Your task to perform on an android device: change timer sound Image 0: 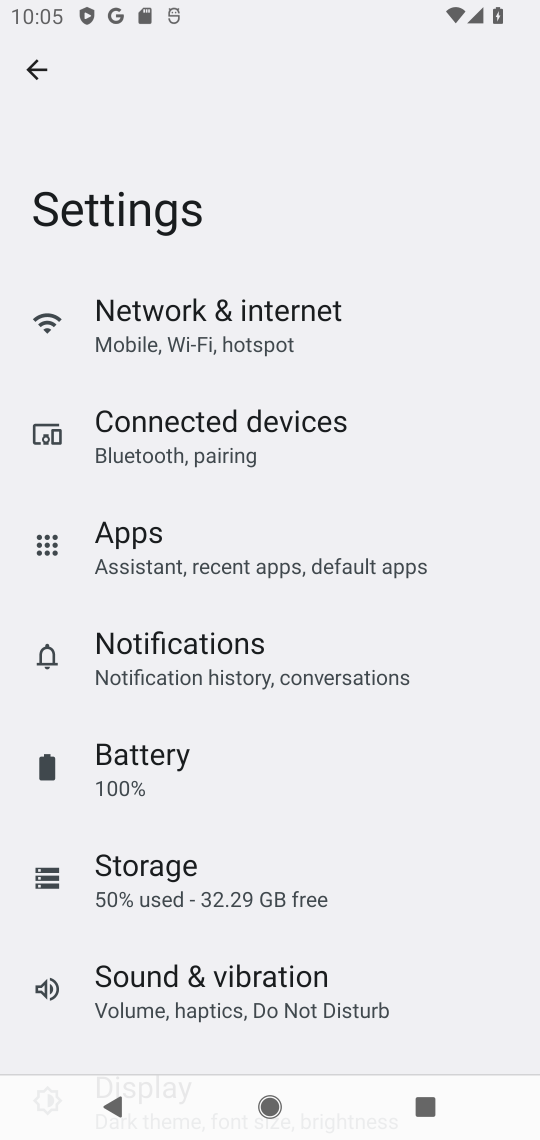
Step 0: press home button
Your task to perform on an android device: change timer sound Image 1: 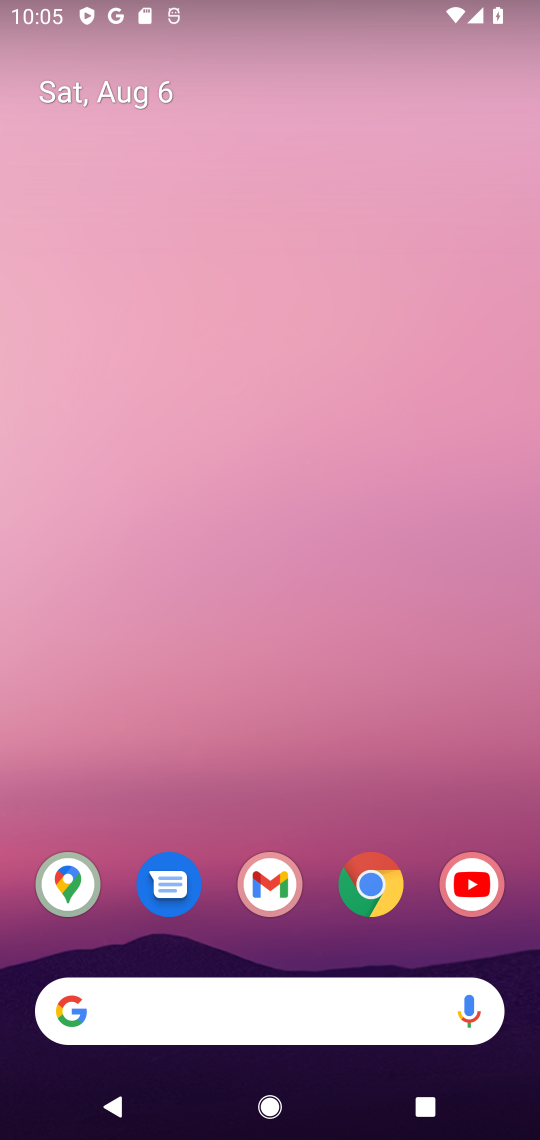
Step 1: drag from (329, 954) to (324, 205)
Your task to perform on an android device: change timer sound Image 2: 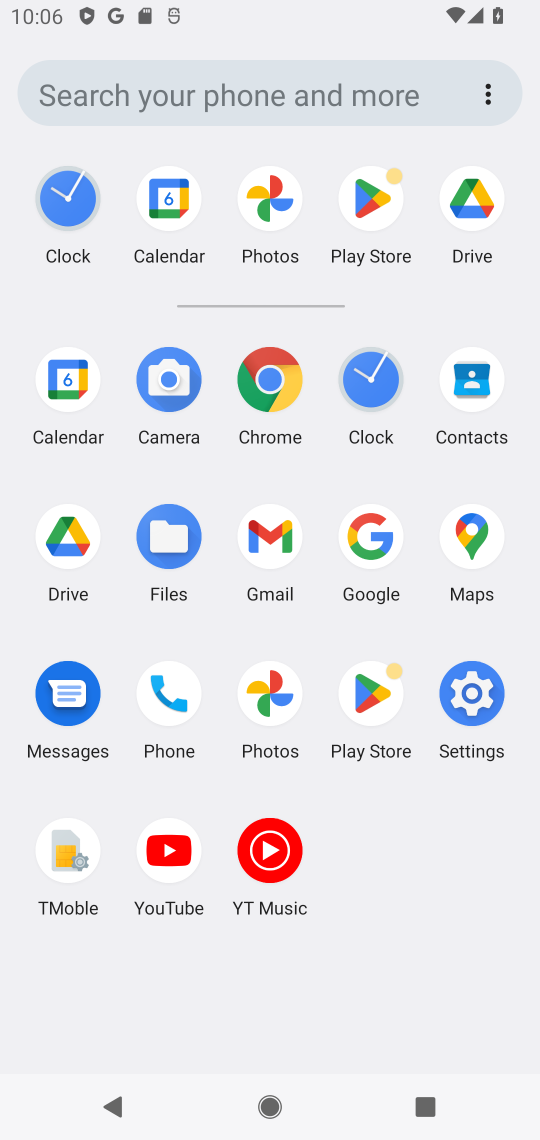
Step 2: click (375, 380)
Your task to perform on an android device: change timer sound Image 3: 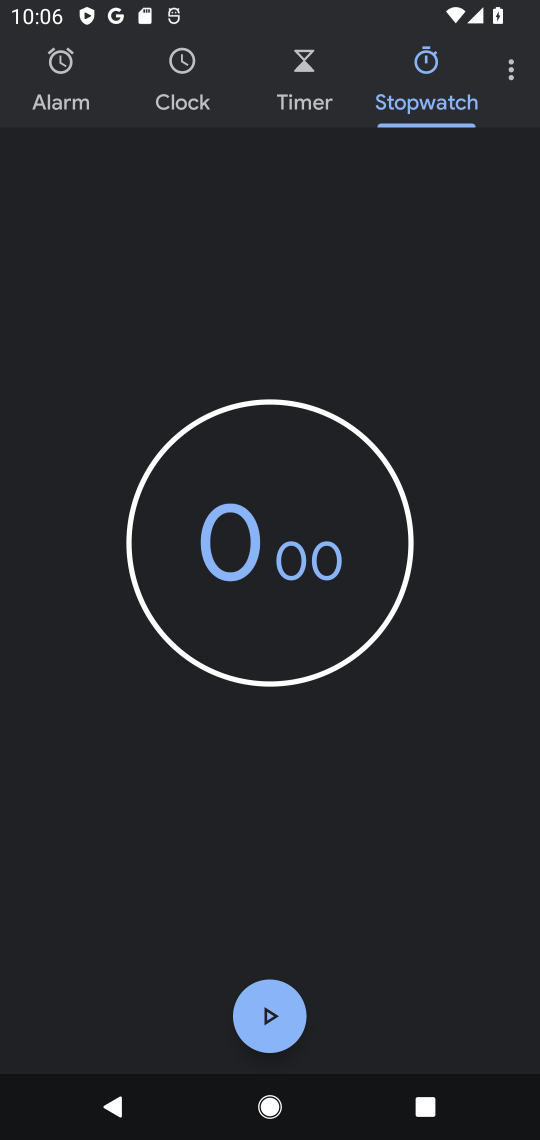
Step 3: click (511, 80)
Your task to perform on an android device: change timer sound Image 4: 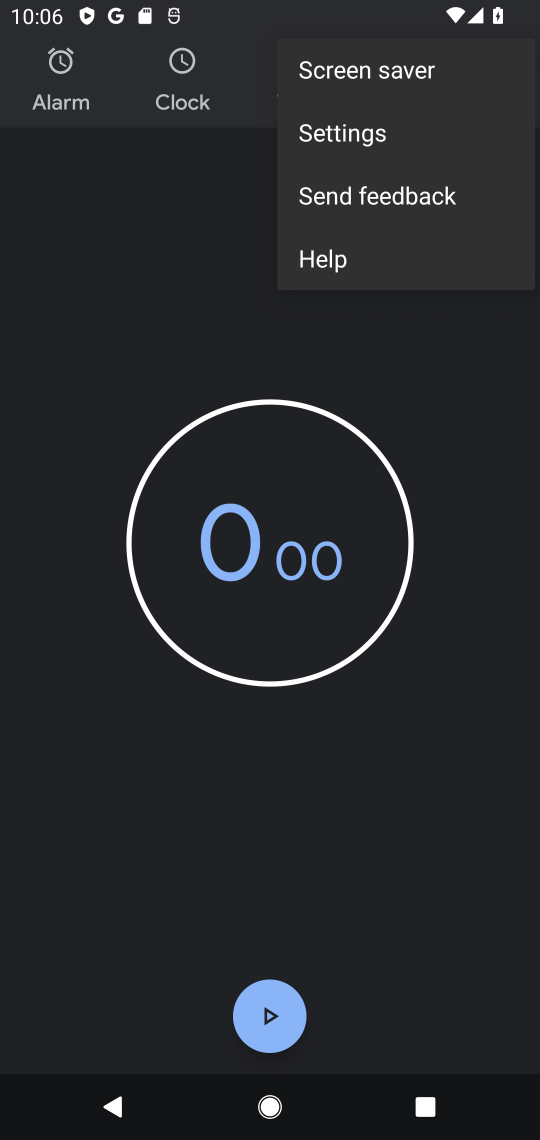
Step 4: click (350, 127)
Your task to perform on an android device: change timer sound Image 5: 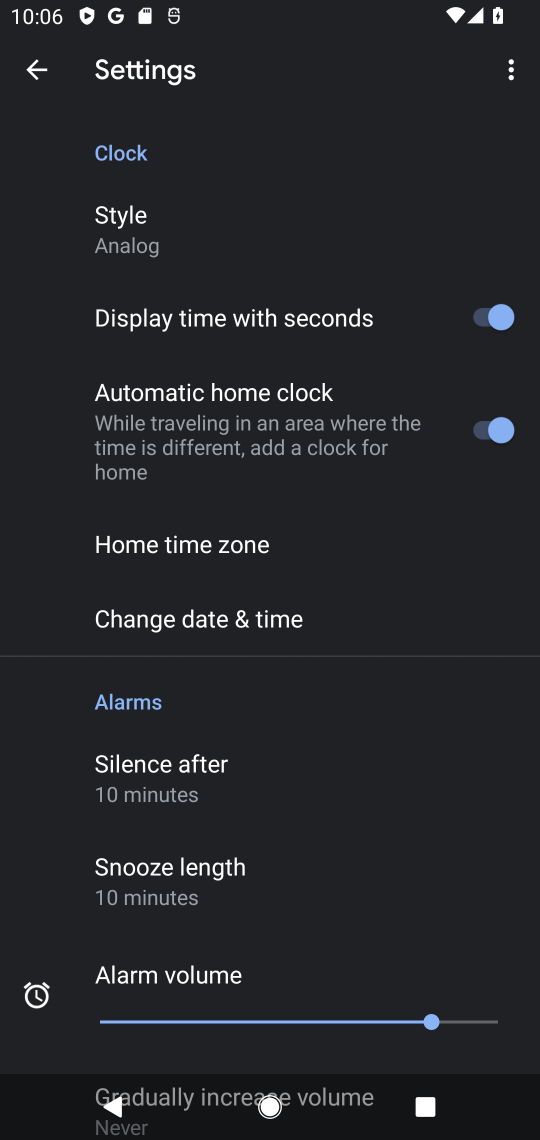
Step 5: drag from (347, 962) to (350, 284)
Your task to perform on an android device: change timer sound Image 6: 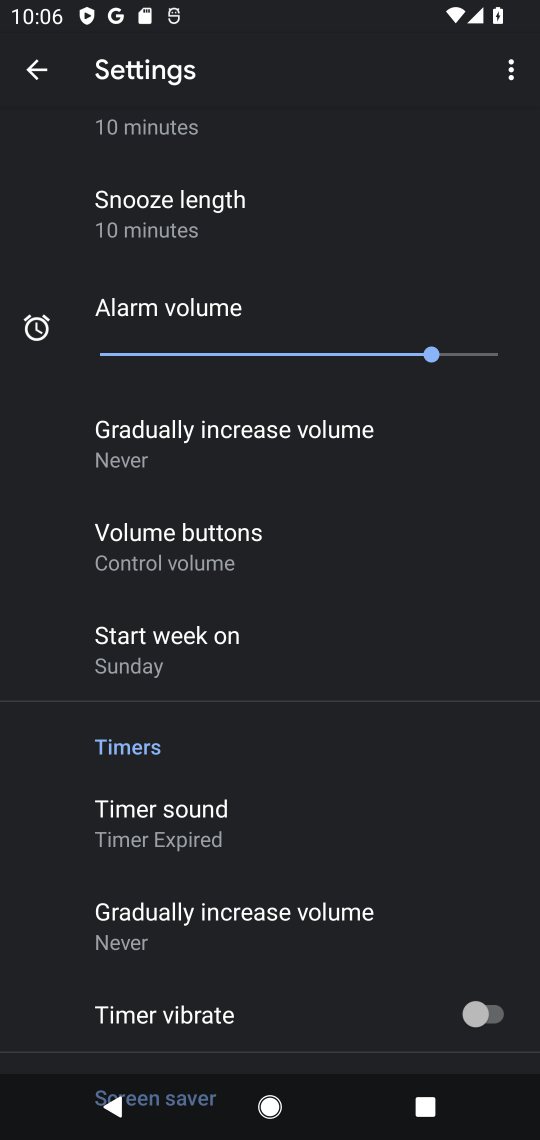
Step 6: click (164, 817)
Your task to perform on an android device: change timer sound Image 7: 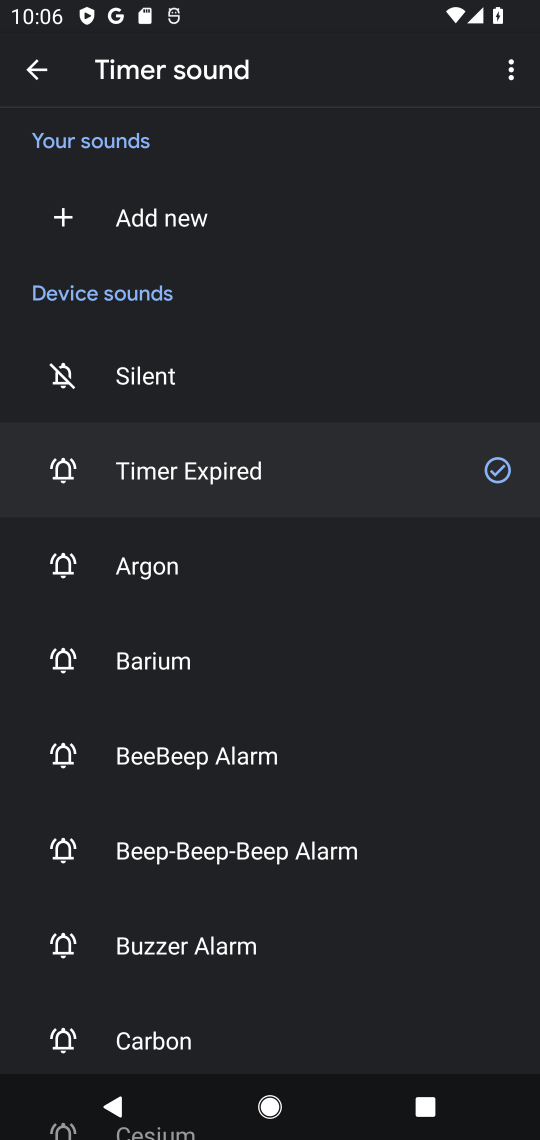
Step 7: drag from (346, 1002) to (359, 270)
Your task to perform on an android device: change timer sound Image 8: 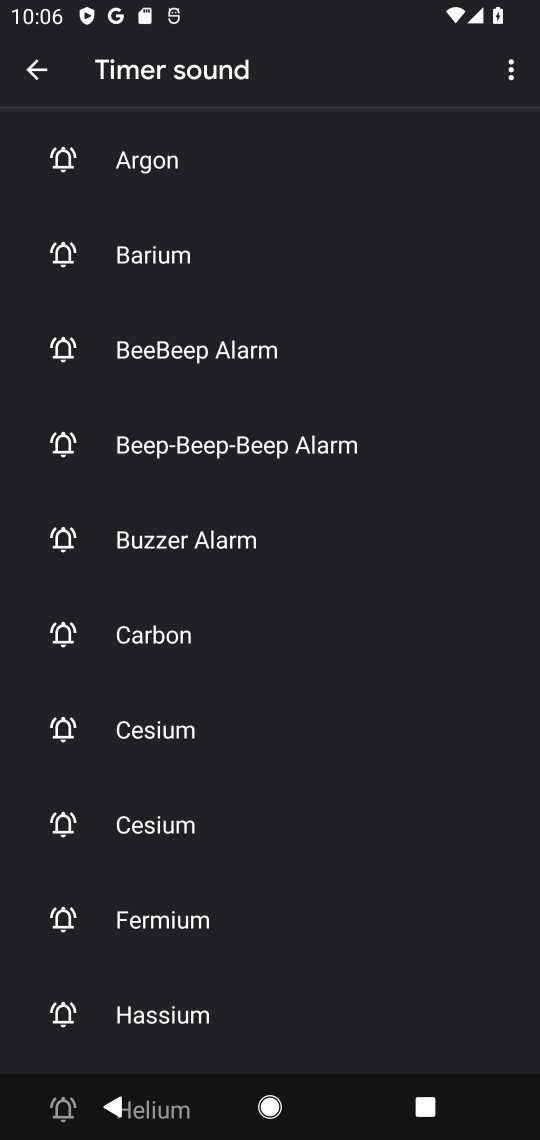
Step 8: drag from (378, 1021) to (373, 248)
Your task to perform on an android device: change timer sound Image 9: 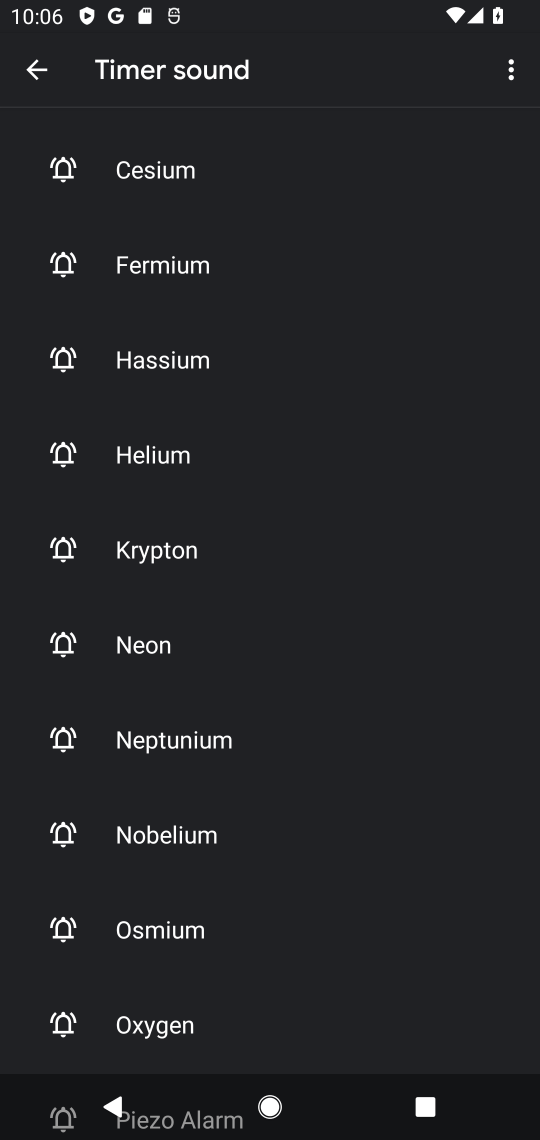
Step 9: drag from (356, 1004) to (340, 782)
Your task to perform on an android device: change timer sound Image 10: 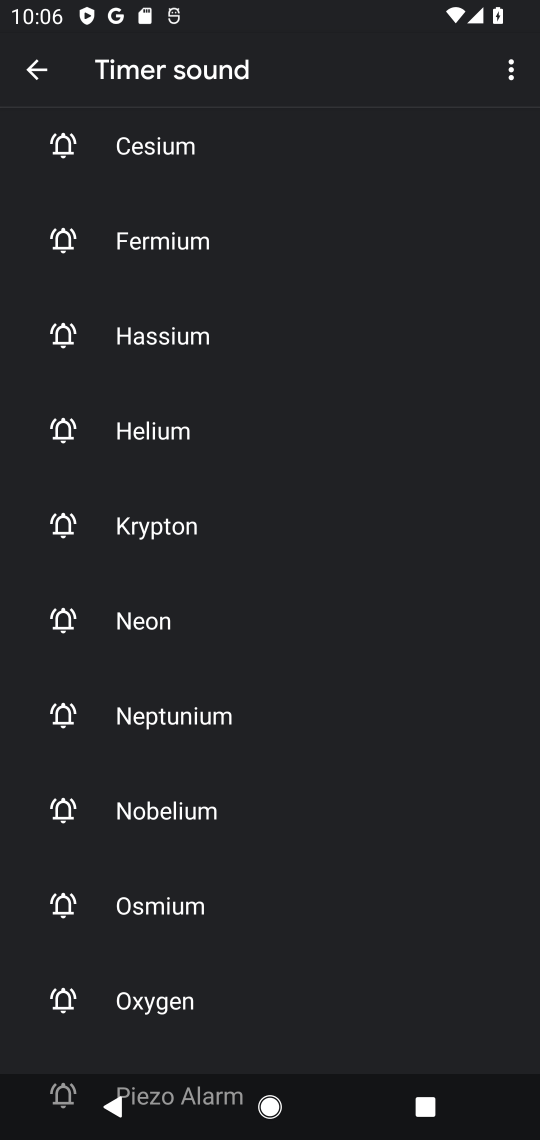
Step 10: click (135, 620)
Your task to perform on an android device: change timer sound Image 11: 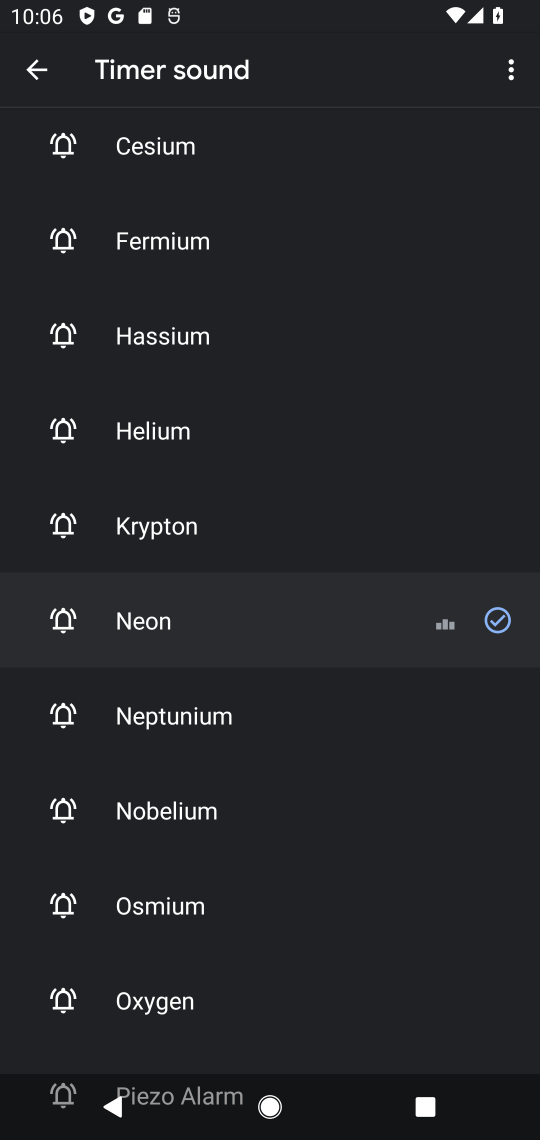
Step 11: task complete